Your task to perform on an android device: turn on sleep mode Image 0: 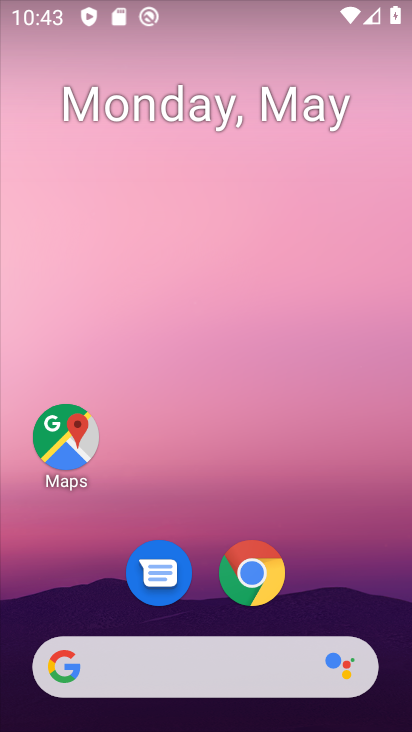
Step 0: drag from (238, 633) to (254, 295)
Your task to perform on an android device: turn on sleep mode Image 1: 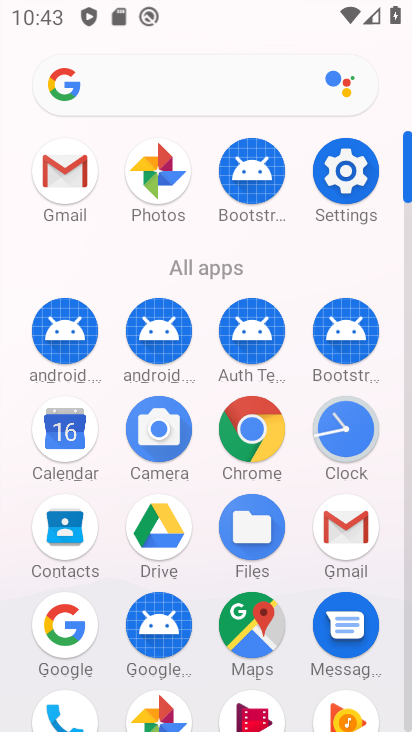
Step 1: click (344, 179)
Your task to perform on an android device: turn on sleep mode Image 2: 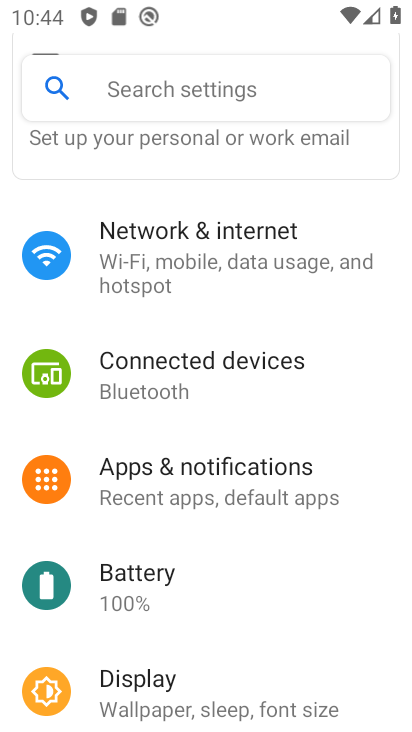
Step 2: click (159, 705)
Your task to perform on an android device: turn on sleep mode Image 3: 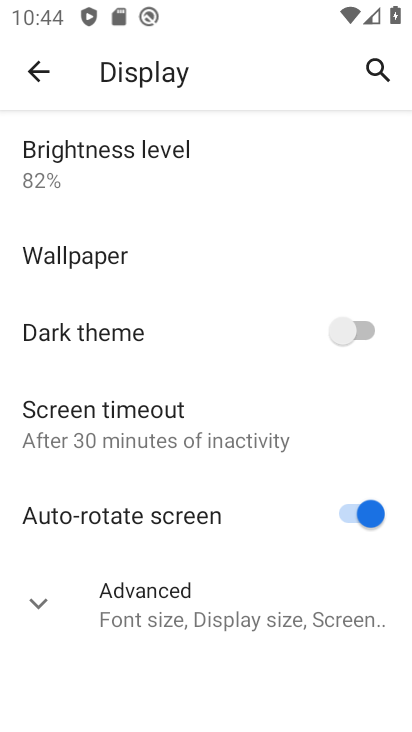
Step 3: click (146, 612)
Your task to perform on an android device: turn on sleep mode Image 4: 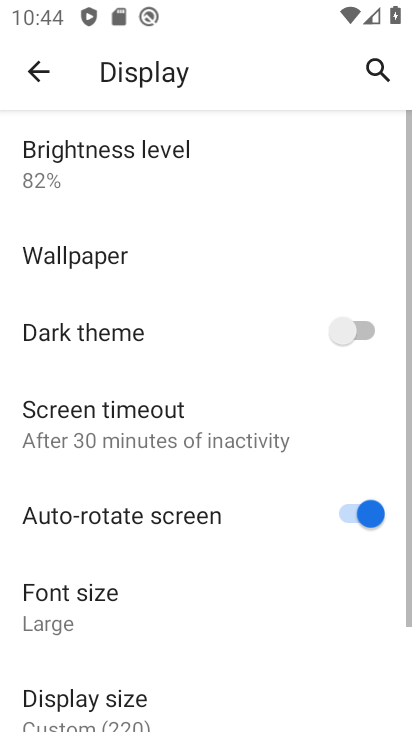
Step 4: drag from (160, 668) to (195, 304)
Your task to perform on an android device: turn on sleep mode Image 5: 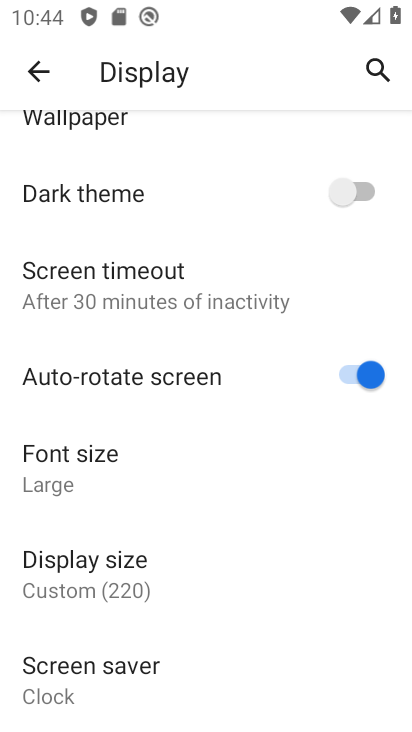
Step 5: click (88, 285)
Your task to perform on an android device: turn on sleep mode Image 6: 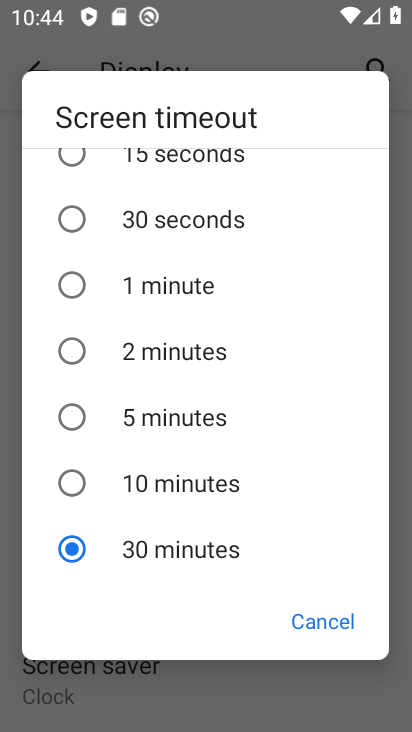
Step 6: click (157, 226)
Your task to perform on an android device: turn on sleep mode Image 7: 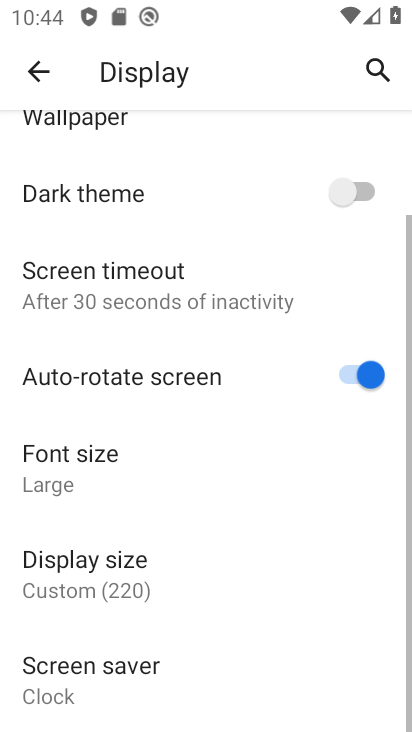
Step 7: task complete